Your task to perform on an android device: star an email in the gmail app Image 0: 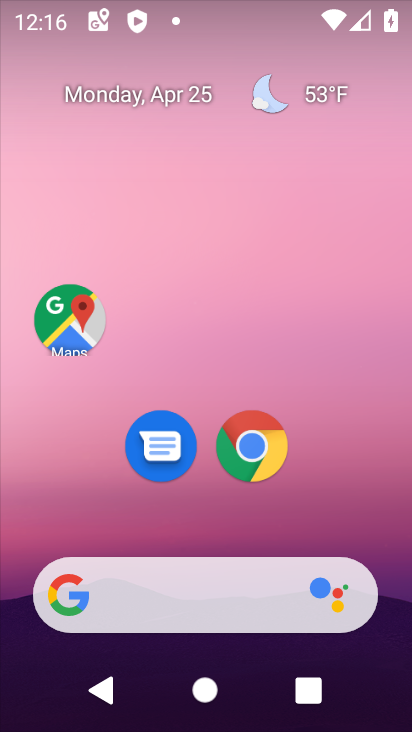
Step 0: drag from (207, 532) to (244, 5)
Your task to perform on an android device: star an email in the gmail app Image 1: 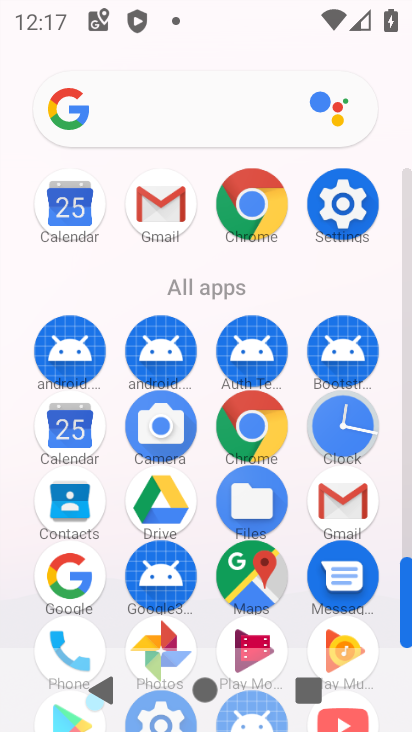
Step 1: click (345, 487)
Your task to perform on an android device: star an email in the gmail app Image 2: 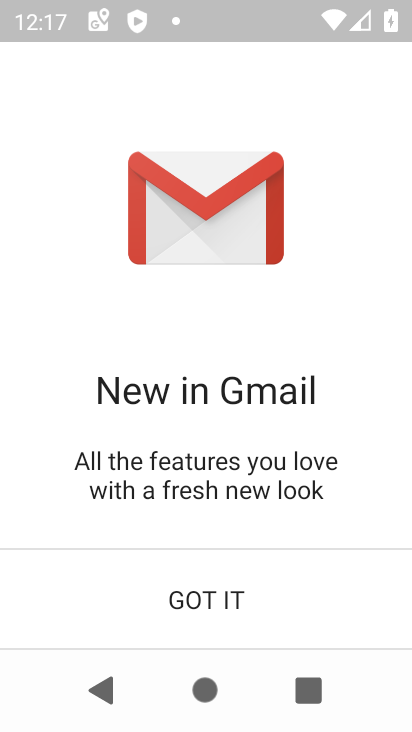
Step 2: click (235, 597)
Your task to perform on an android device: star an email in the gmail app Image 3: 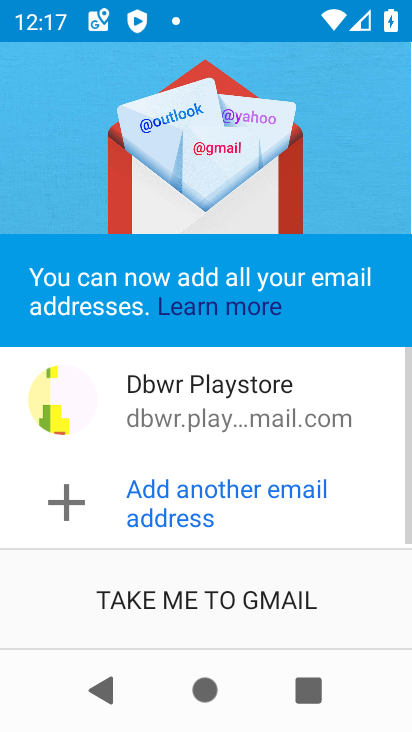
Step 3: click (235, 597)
Your task to perform on an android device: star an email in the gmail app Image 4: 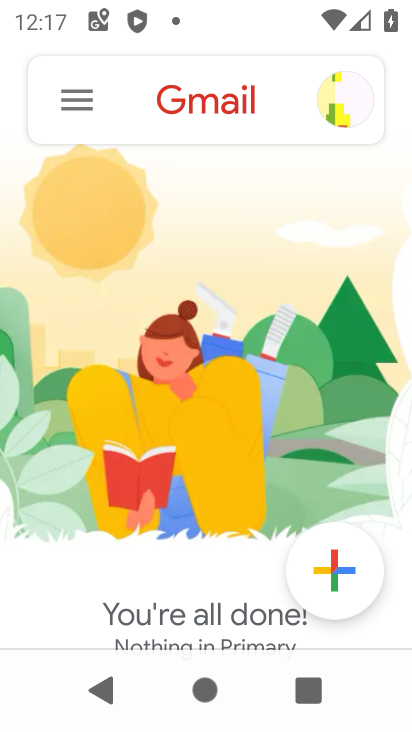
Step 4: click (68, 112)
Your task to perform on an android device: star an email in the gmail app Image 5: 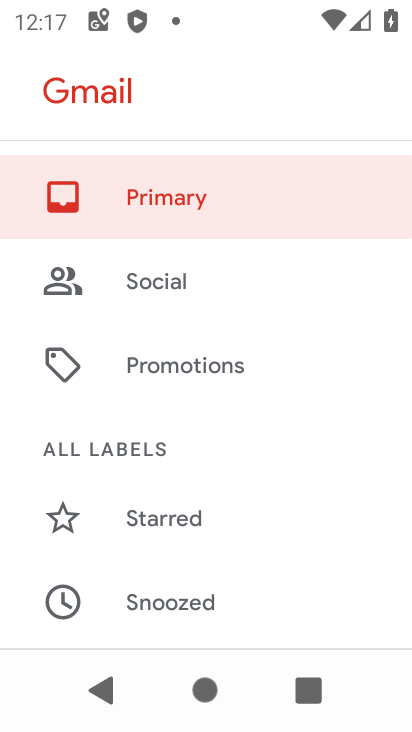
Step 5: drag from (149, 569) to (225, 83)
Your task to perform on an android device: star an email in the gmail app Image 6: 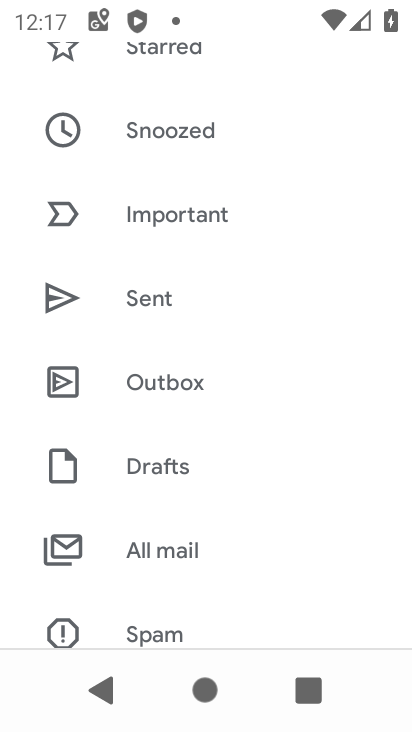
Step 6: click (187, 545)
Your task to perform on an android device: star an email in the gmail app Image 7: 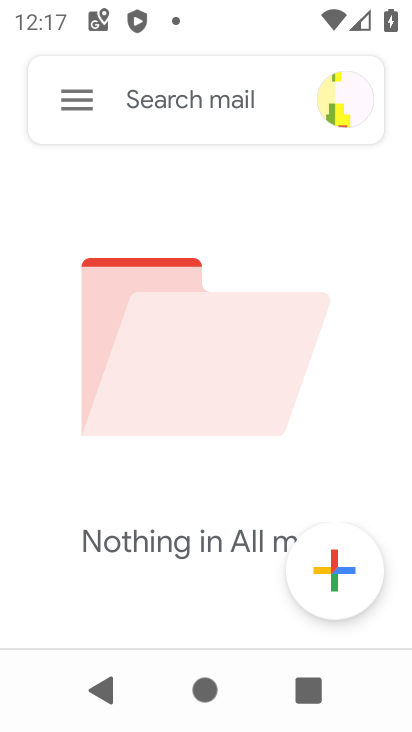
Step 7: task complete